Your task to perform on an android device: turn on notifications settings in the gmail app Image 0: 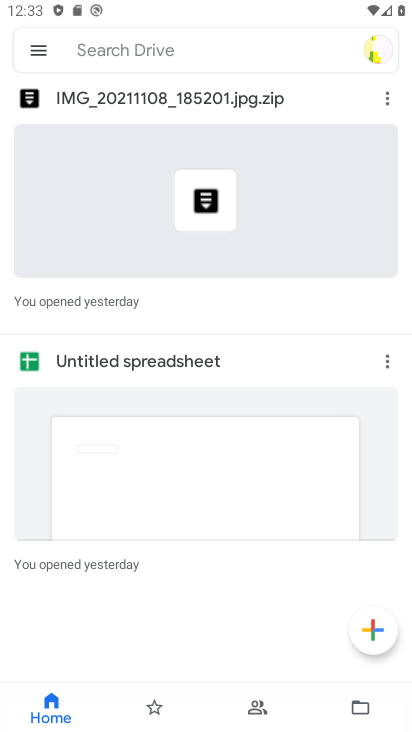
Step 0: press home button
Your task to perform on an android device: turn on notifications settings in the gmail app Image 1: 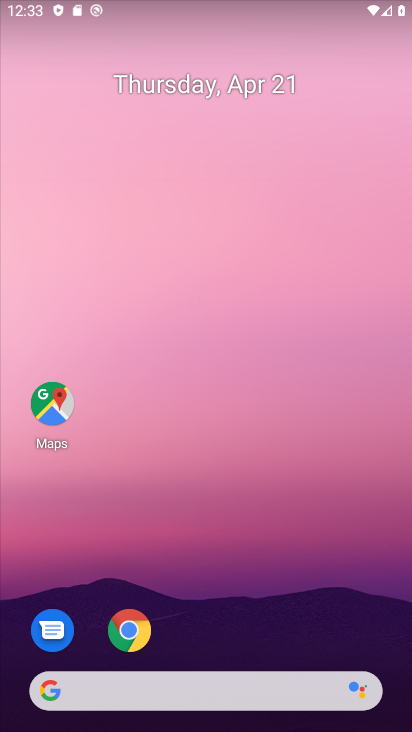
Step 1: drag from (277, 597) to (256, 57)
Your task to perform on an android device: turn on notifications settings in the gmail app Image 2: 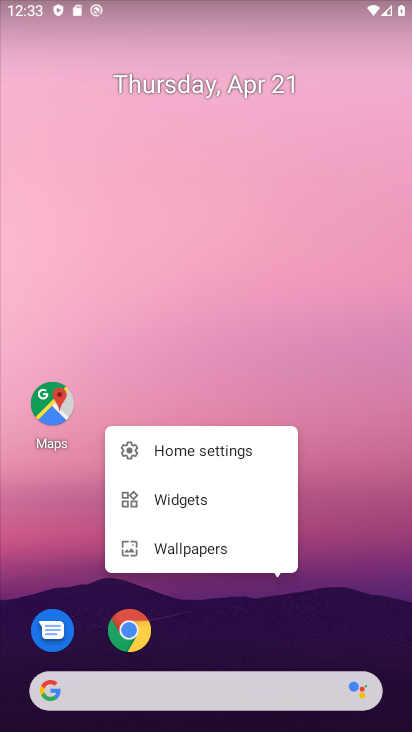
Step 2: click (314, 549)
Your task to perform on an android device: turn on notifications settings in the gmail app Image 3: 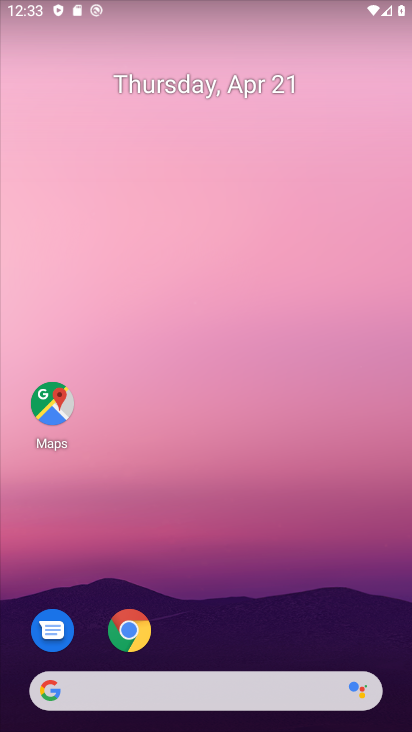
Step 3: drag from (314, 549) to (230, 29)
Your task to perform on an android device: turn on notifications settings in the gmail app Image 4: 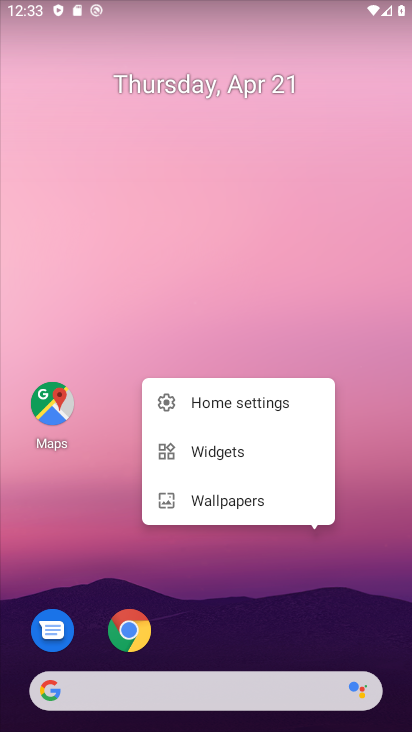
Step 4: click (353, 591)
Your task to perform on an android device: turn on notifications settings in the gmail app Image 5: 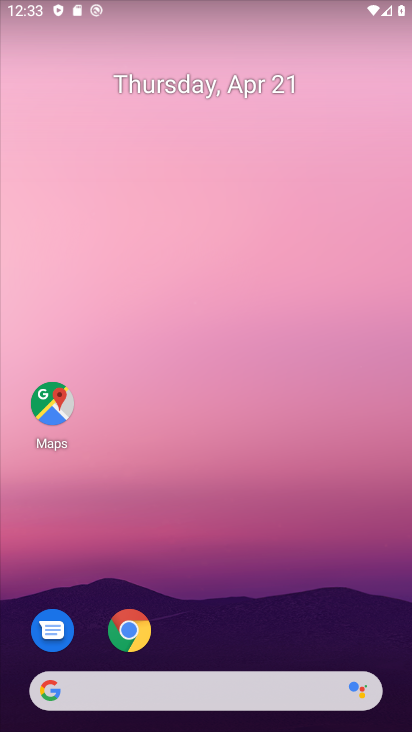
Step 5: drag from (353, 591) to (239, 103)
Your task to perform on an android device: turn on notifications settings in the gmail app Image 6: 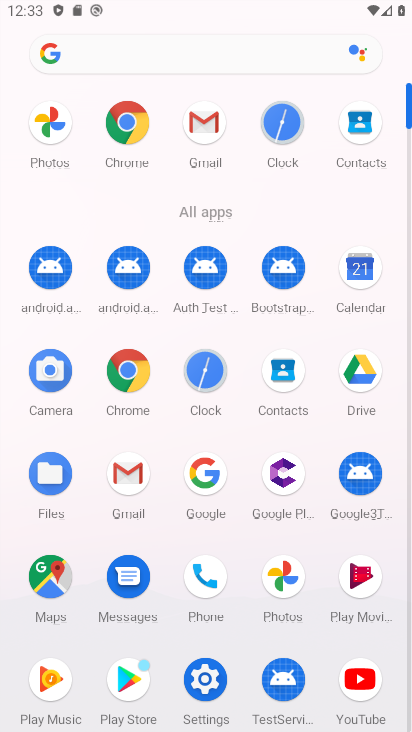
Step 6: click (211, 143)
Your task to perform on an android device: turn on notifications settings in the gmail app Image 7: 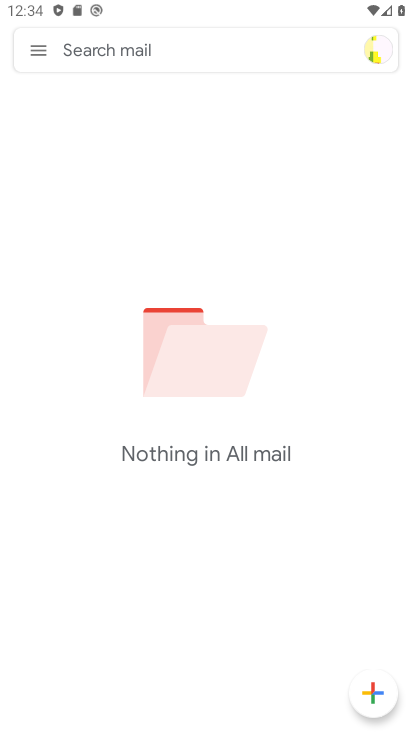
Step 7: click (41, 52)
Your task to perform on an android device: turn on notifications settings in the gmail app Image 8: 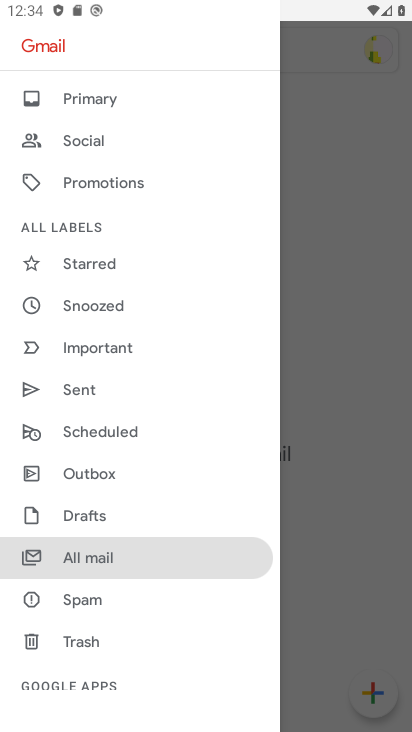
Step 8: drag from (103, 608) to (95, 310)
Your task to perform on an android device: turn on notifications settings in the gmail app Image 9: 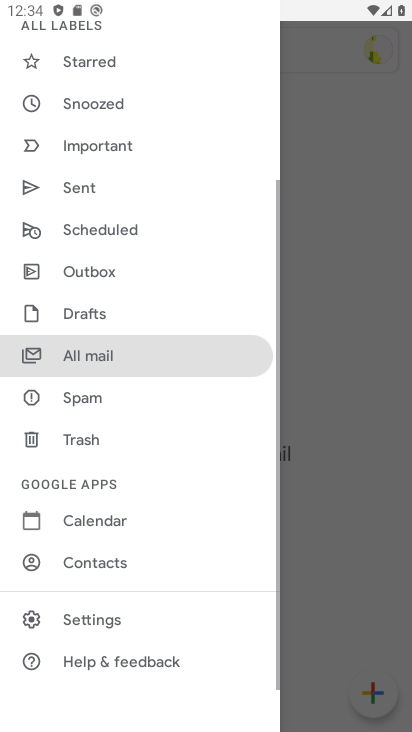
Step 9: click (102, 618)
Your task to perform on an android device: turn on notifications settings in the gmail app Image 10: 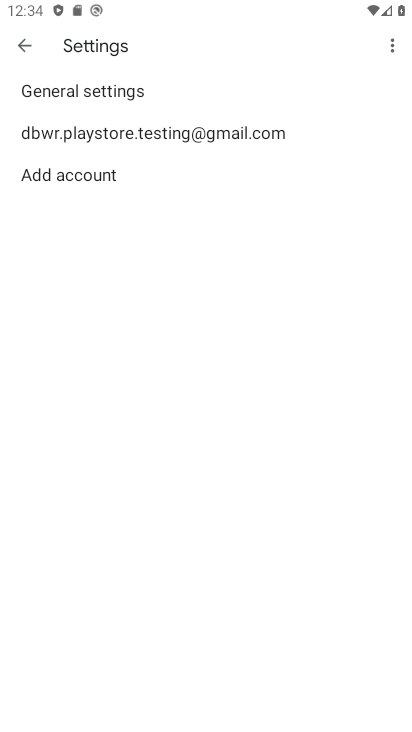
Step 10: click (182, 88)
Your task to perform on an android device: turn on notifications settings in the gmail app Image 11: 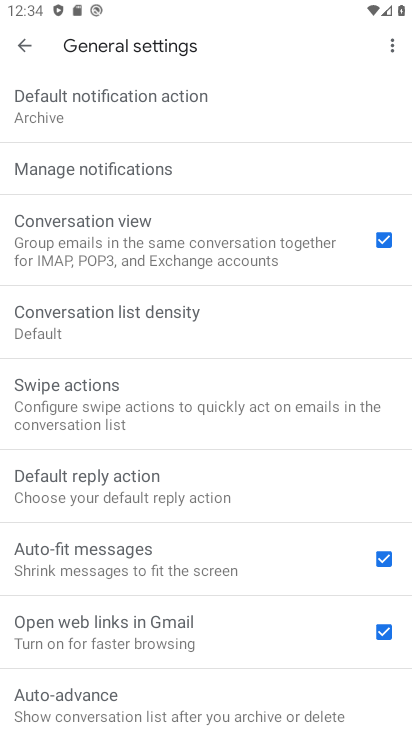
Step 11: click (167, 181)
Your task to perform on an android device: turn on notifications settings in the gmail app Image 12: 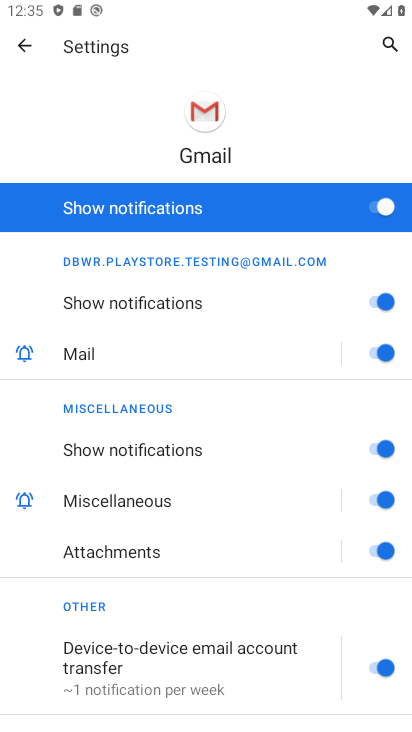
Step 12: click (396, 207)
Your task to perform on an android device: turn on notifications settings in the gmail app Image 13: 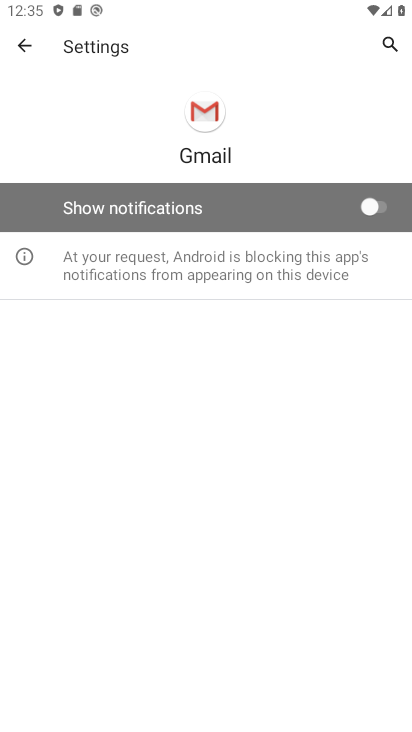
Step 13: task complete